Your task to perform on an android device: Go to ESPN.com Image 0: 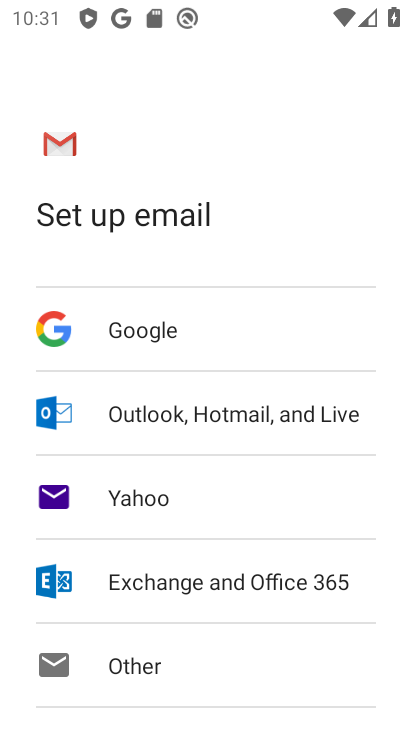
Step 0: press back button
Your task to perform on an android device: Go to ESPN.com Image 1: 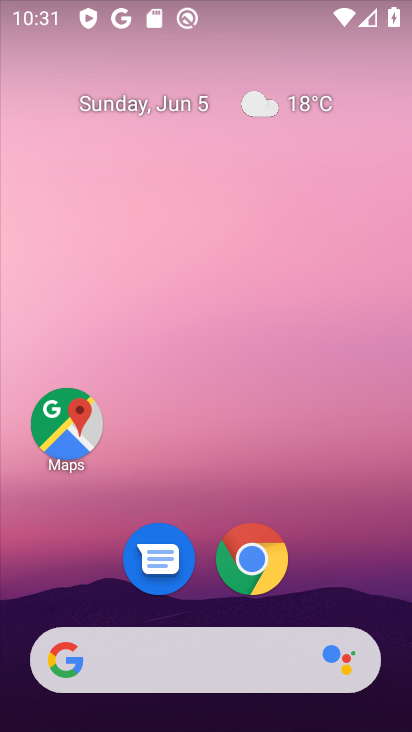
Step 1: drag from (322, 630) to (270, 352)
Your task to perform on an android device: Go to ESPN.com Image 2: 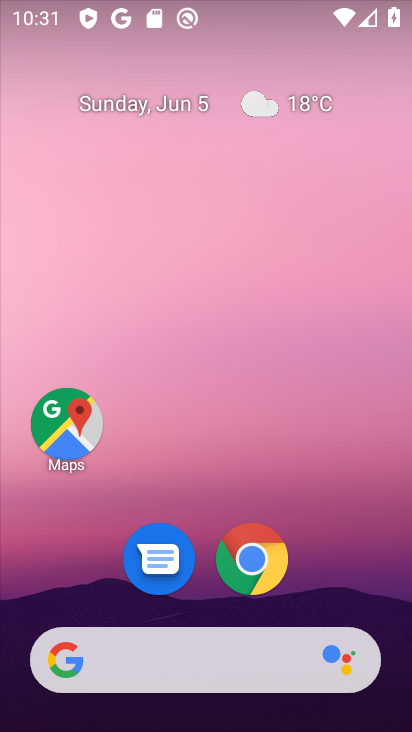
Step 2: drag from (255, 264) to (181, 56)
Your task to perform on an android device: Go to ESPN.com Image 3: 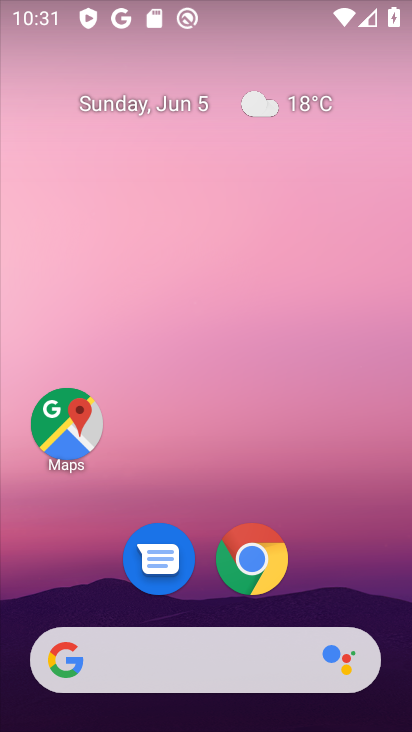
Step 3: drag from (168, 350) to (122, 137)
Your task to perform on an android device: Go to ESPN.com Image 4: 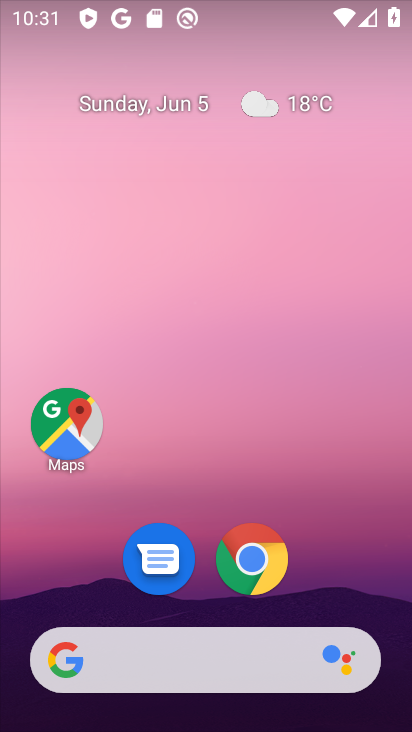
Step 4: drag from (233, 426) to (216, 206)
Your task to perform on an android device: Go to ESPN.com Image 5: 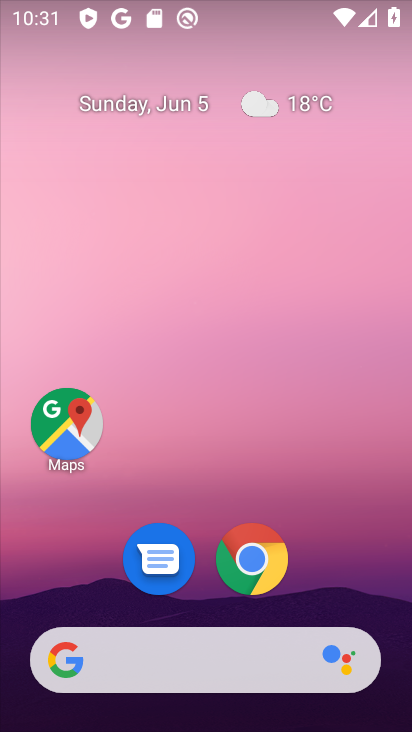
Step 5: drag from (221, 562) to (171, 162)
Your task to perform on an android device: Go to ESPN.com Image 6: 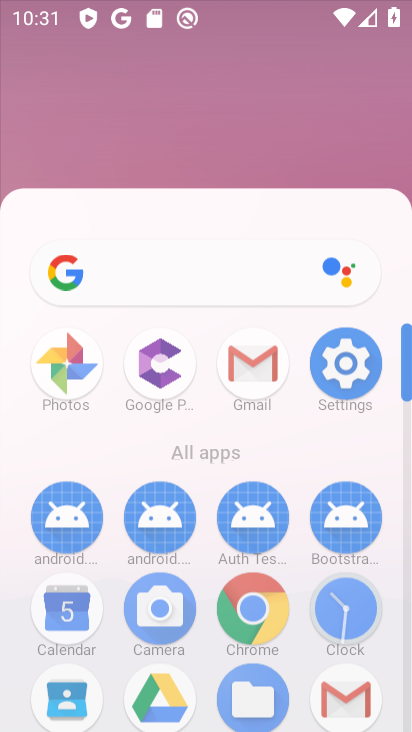
Step 6: drag from (245, 360) to (221, 193)
Your task to perform on an android device: Go to ESPN.com Image 7: 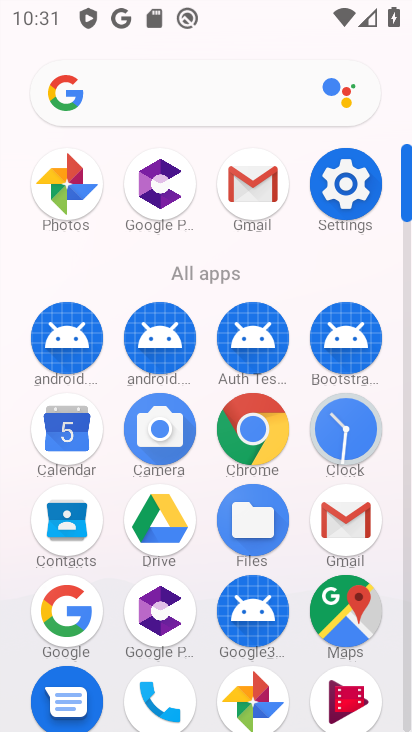
Step 7: drag from (242, 402) to (177, 0)
Your task to perform on an android device: Go to ESPN.com Image 8: 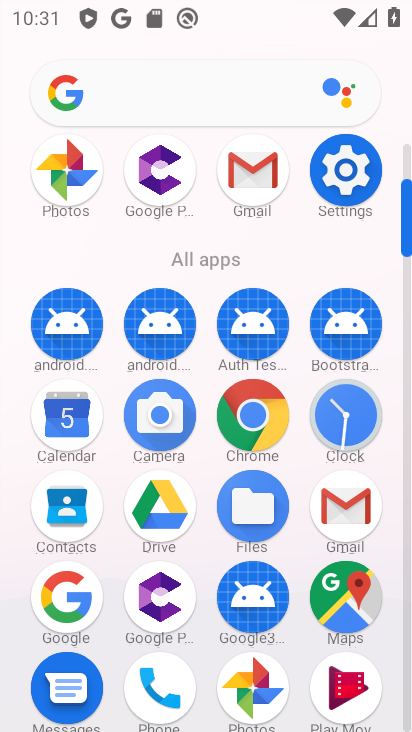
Step 8: click (261, 426)
Your task to perform on an android device: Go to ESPN.com Image 9: 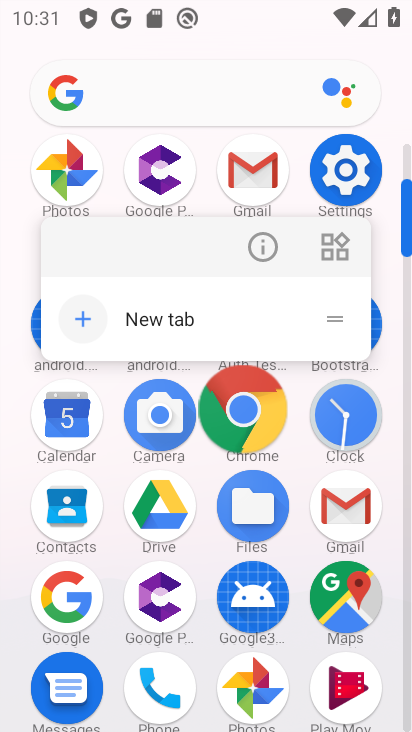
Step 9: click (254, 420)
Your task to perform on an android device: Go to ESPN.com Image 10: 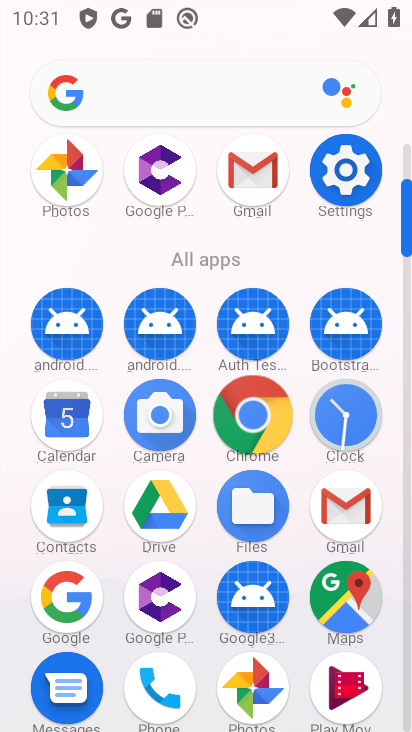
Step 10: click (256, 425)
Your task to perform on an android device: Go to ESPN.com Image 11: 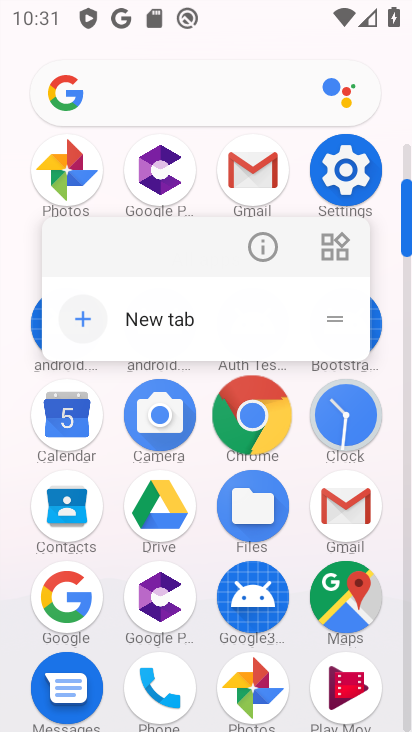
Step 11: drag from (208, 414) to (264, 413)
Your task to perform on an android device: Go to ESPN.com Image 12: 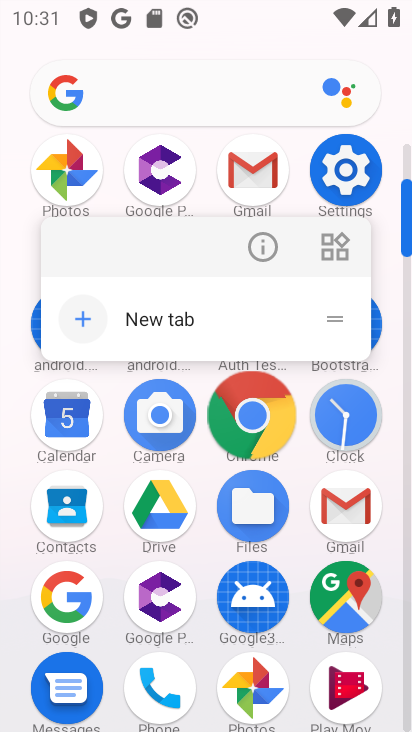
Step 12: click (264, 413)
Your task to perform on an android device: Go to ESPN.com Image 13: 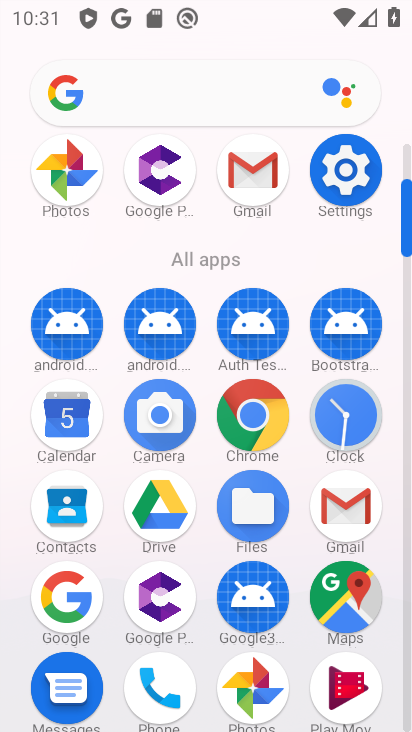
Step 13: click (261, 398)
Your task to perform on an android device: Go to ESPN.com Image 14: 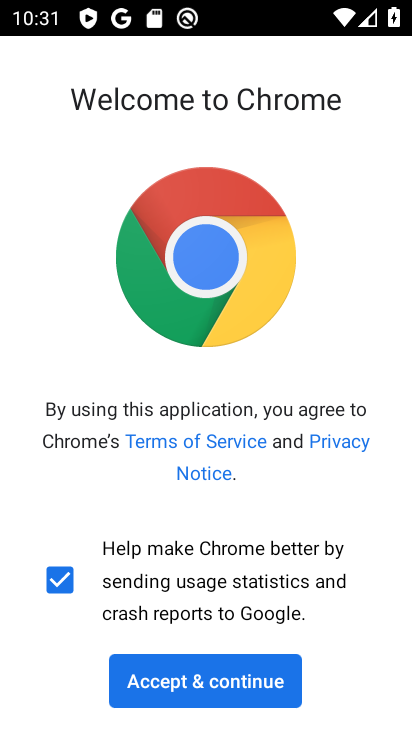
Step 14: click (220, 687)
Your task to perform on an android device: Go to ESPN.com Image 15: 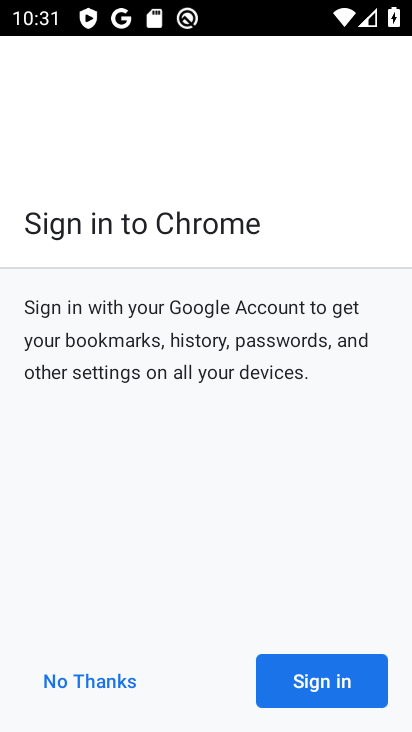
Step 15: click (218, 691)
Your task to perform on an android device: Go to ESPN.com Image 16: 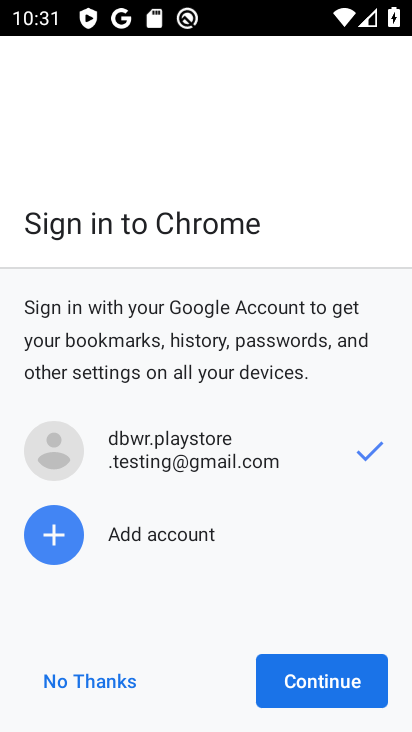
Step 16: click (219, 696)
Your task to perform on an android device: Go to ESPN.com Image 17: 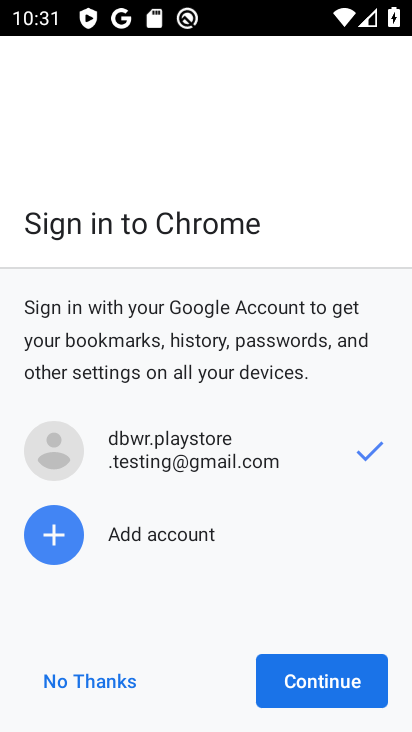
Step 17: click (318, 691)
Your task to perform on an android device: Go to ESPN.com Image 18: 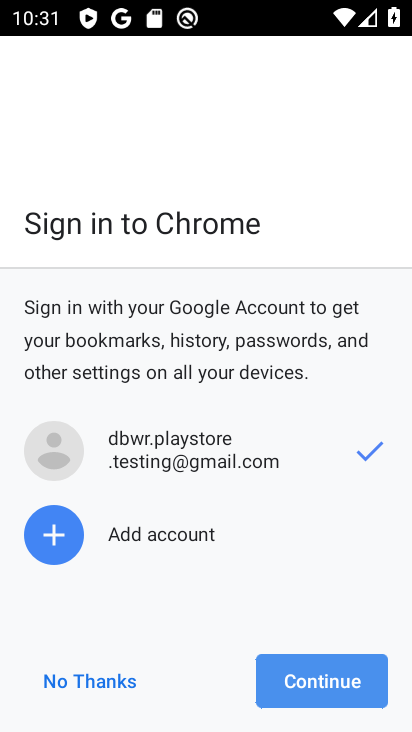
Step 18: click (318, 691)
Your task to perform on an android device: Go to ESPN.com Image 19: 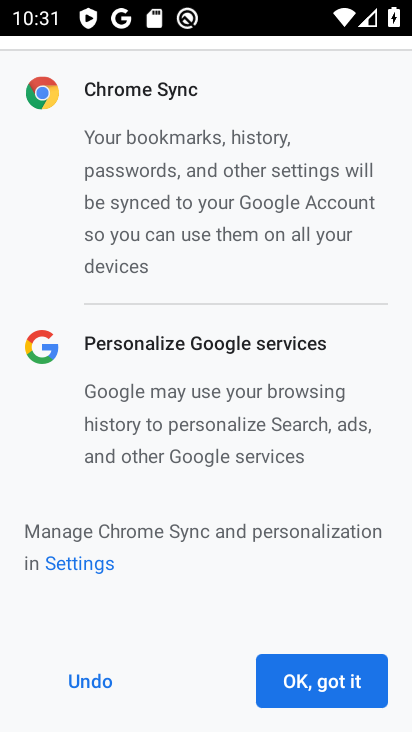
Step 19: click (318, 681)
Your task to perform on an android device: Go to ESPN.com Image 20: 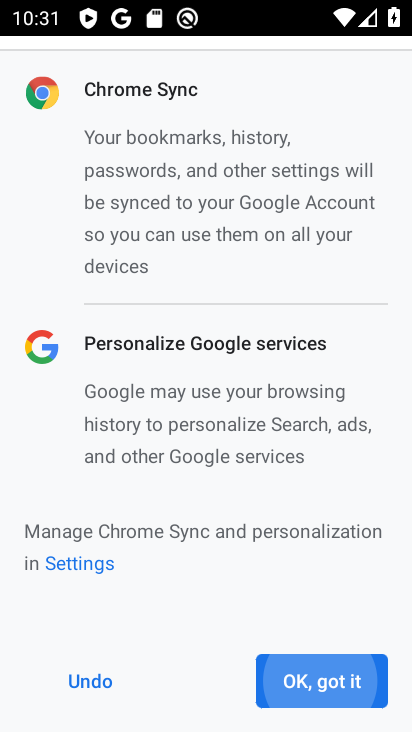
Step 20: click (318, 680)
Your task to perform on an android device: Go to ESPN.com Image 21: 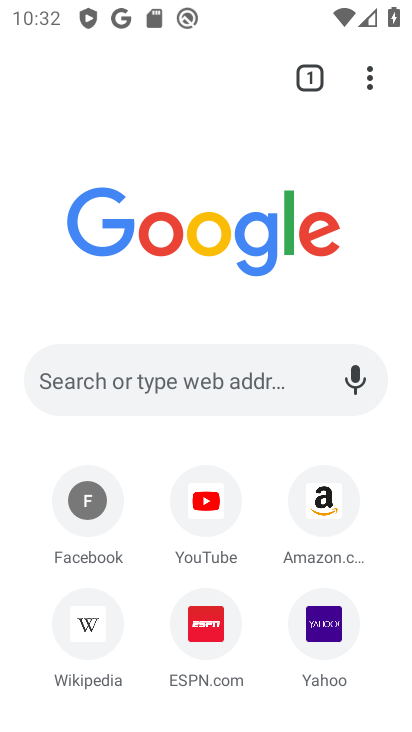
Step 21: click (209, 618)
Your task to perform on an android device: Go to ESPN.com Image 22: 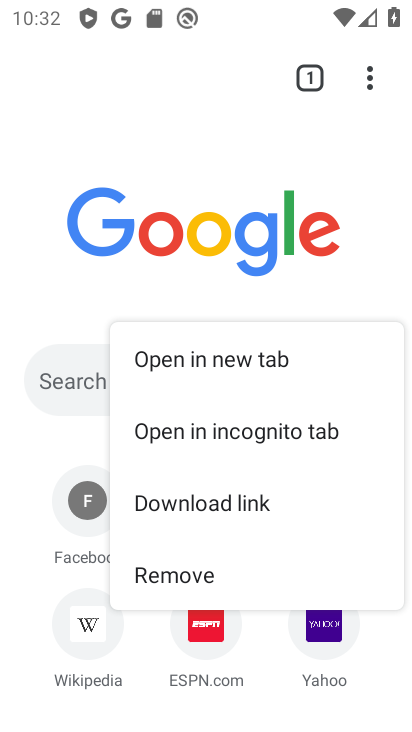
Step 22: click (209, 616)
Your task to perform on an android device: Go to ESPN.com Image 23: 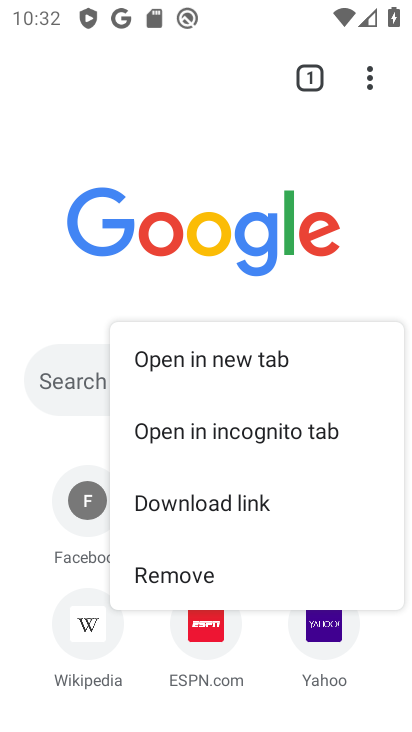
Step 23: click (208, 648)
Your task to perform on an android device: Go to ESPN.com Image 24: 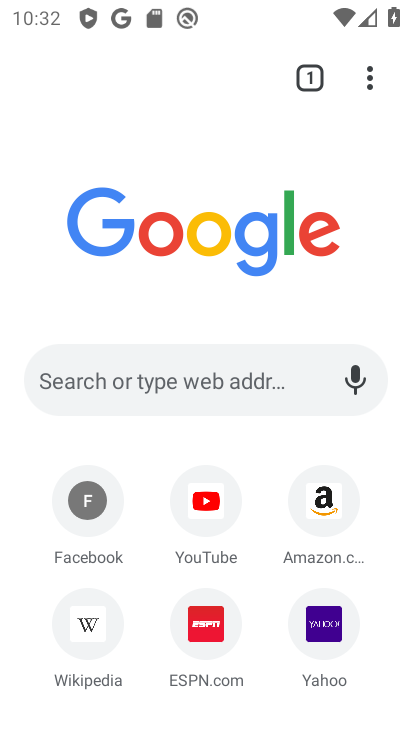
Step 24: click (217, 617)
Your task to perform on an android device: Go to ESPN.com Image 25: 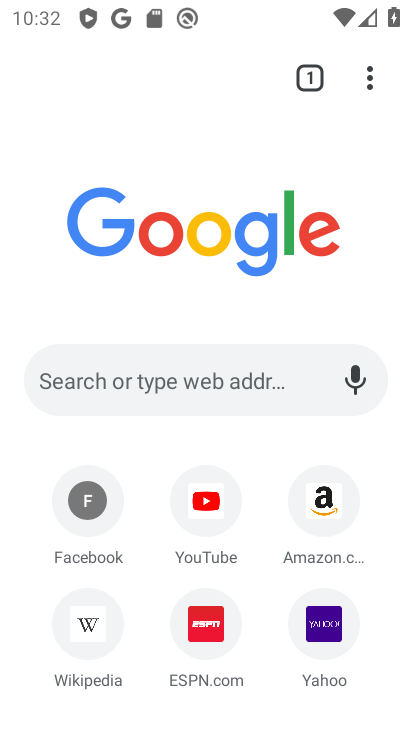
Step 25: click (205, 617)
Your task to perform on an android device: Go to ESPN.com Image 26: 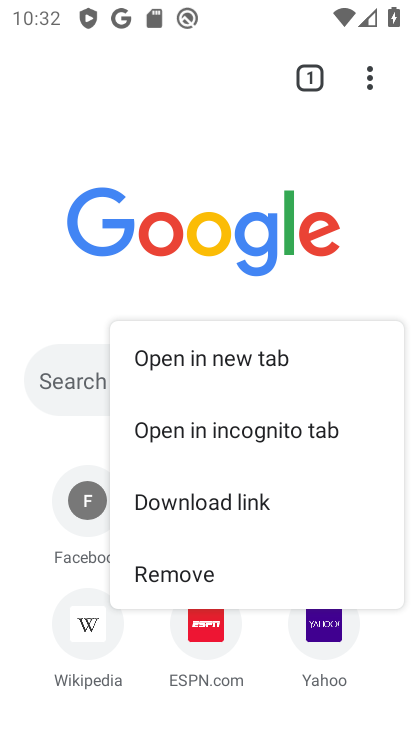
Step 26: click (188, 369)
Your task to perform on an android device: Go to ESPN.com Image 27: 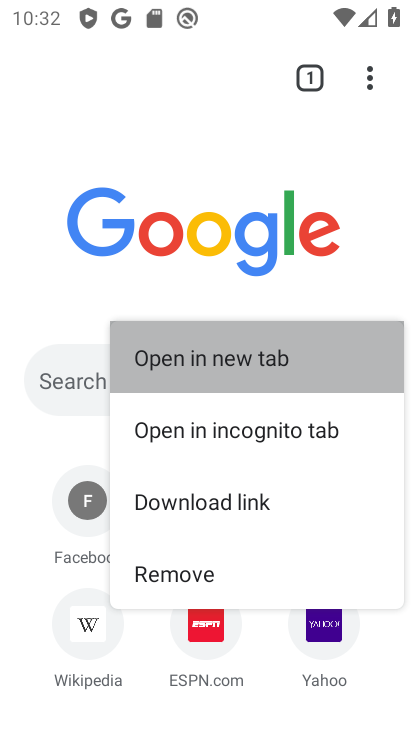
Step 27: click (189, 365)
Your task to perform on an android device: Go to ESPN.com Image 28: 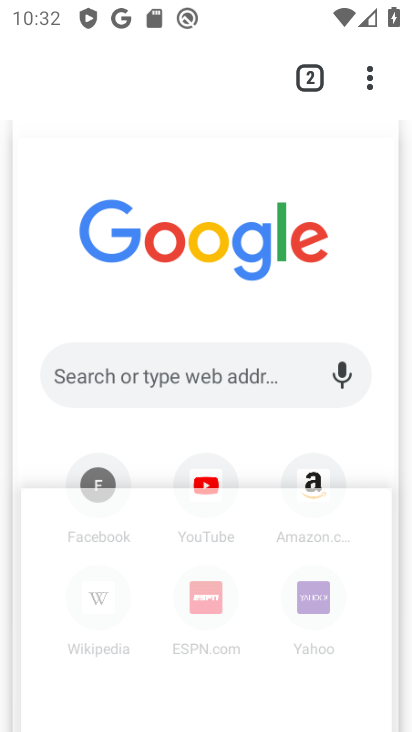
Step 28: click (174, 365)
Your task to perform on an android device: Go to ESPN.com Image 29: 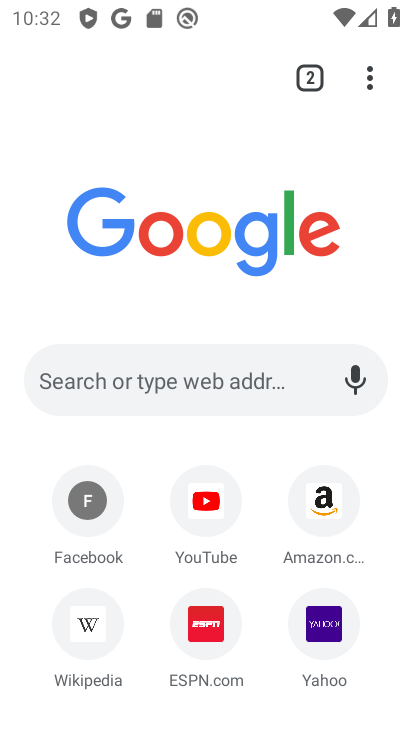
Step 29: click (213, 622)
Your task to perform on an android device: Go to ESPN.com Image 30: 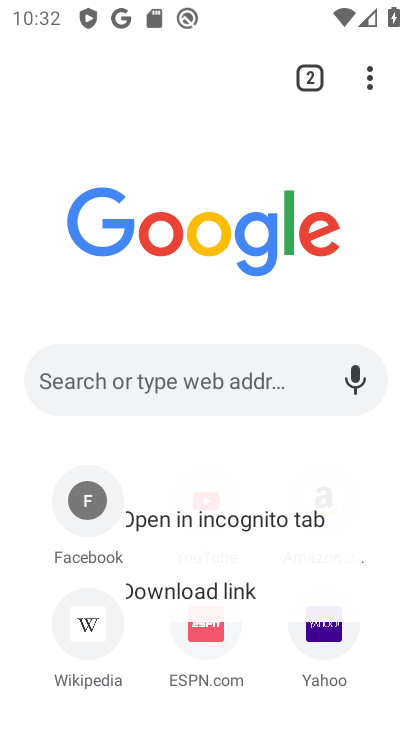
Step 30: click (211, 620)
Your task to perform on an android device: Go to ESPN.com Image 31: 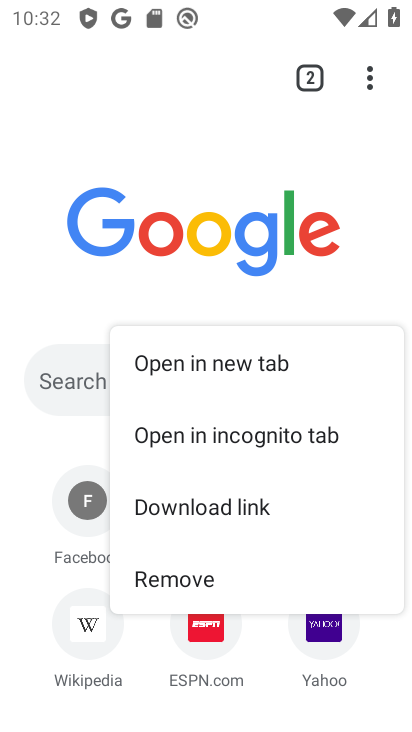
Step 31: click (210, 619)
Your task to perform on an android device: Go to ESPN.com Image 32: 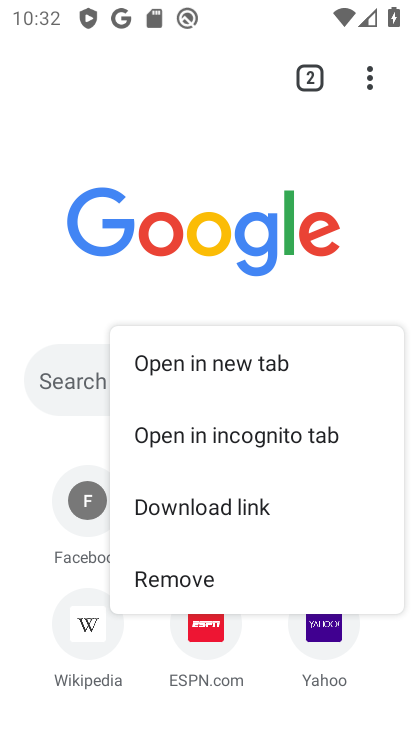
Step 32: click (208, 622)
Your task to perform on an android device: Go to ESPN.com Image 33: 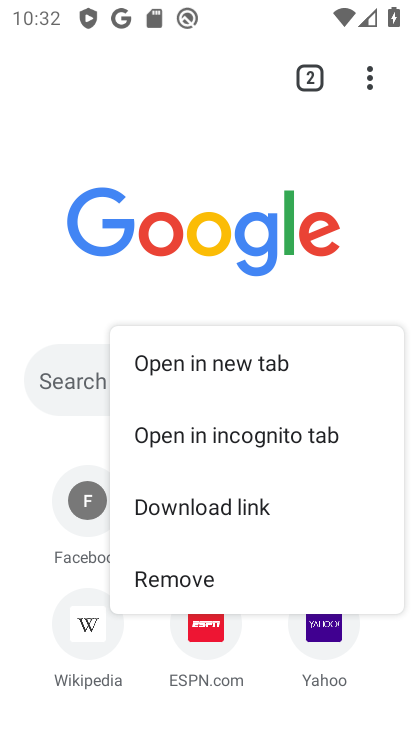
Step 33: click (209, 366)
Your task to perform on an android device: Go to ESPN.com Image 34: 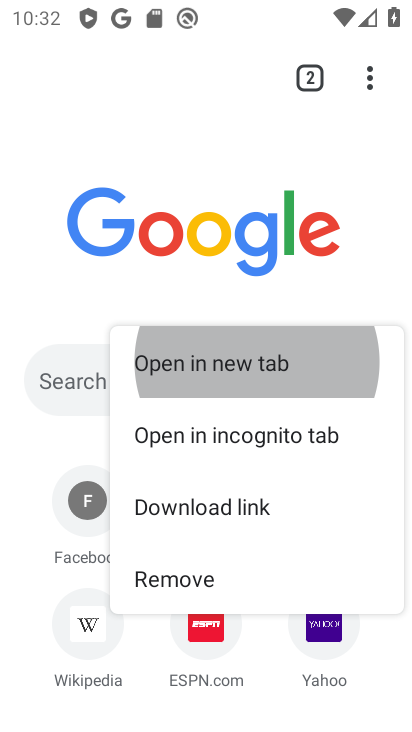
Step 34: click (205, 362)
Your task to perform on an android device: Go to ESPN.com Image 35: 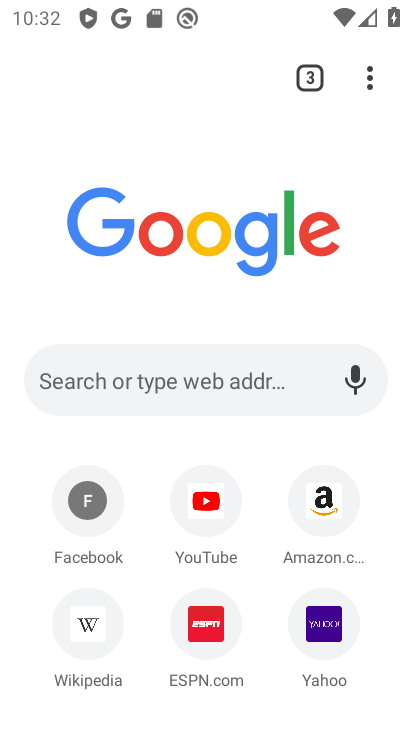
Step 35: click (210, 651)
Your task to perform on an android device: Go to ESPN.com Image 36: 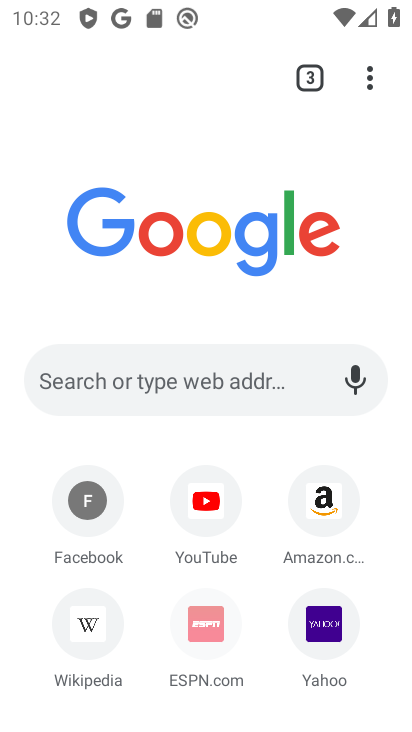
Step 36: click (210, 651)
Your task to perform on an android device: Go to ESPN.com Image 37: 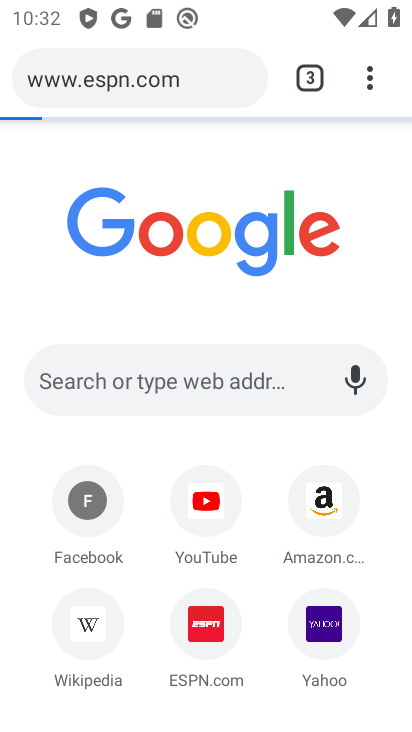
Step 37: click (209, 647)
Your task to perform on an android device: Go to ESPN.com Image 38: 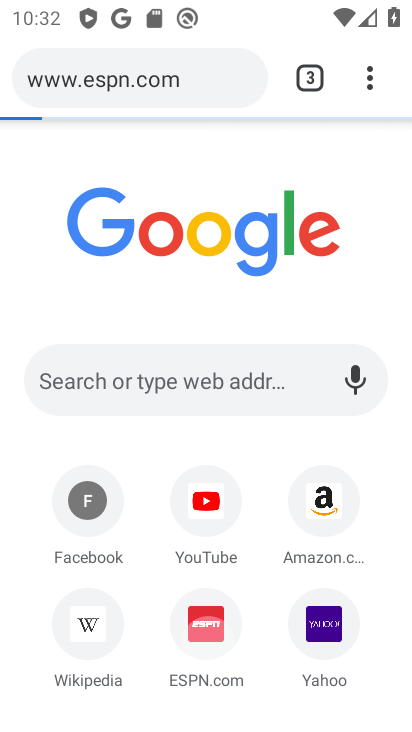
Step 38: click (203, 642)
Your task to perform on an android device: Go to ESPN.com Image 39: 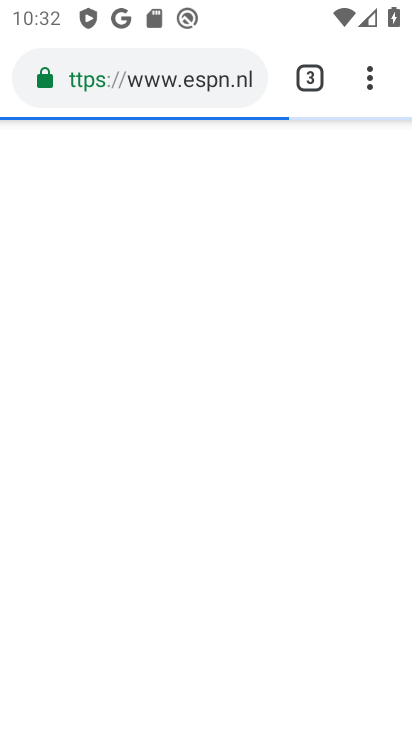
Step 39: task complete